Your task to perform on an android device: Open internet settings Image 0: 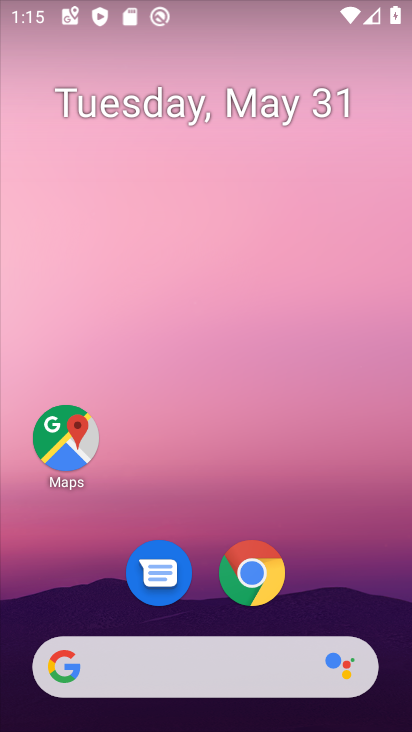
Step 0: drag from (359, 608) to (372, 222)
Your task to perform on an android device: Open internet settings Image 1: 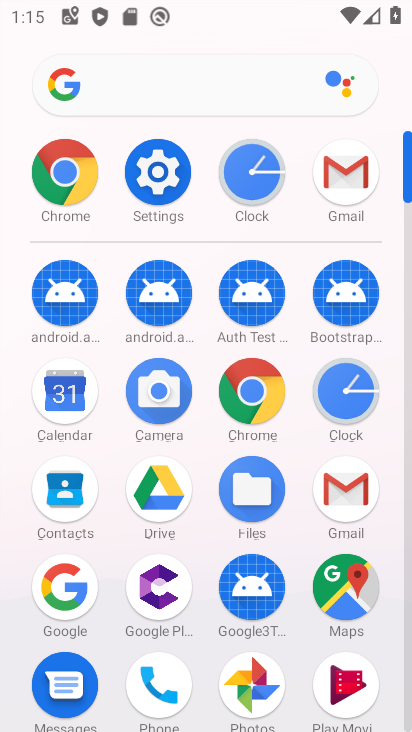
Step 1: click (163, 175)
Your task to perform on an android device: Open internet settings Image 2: 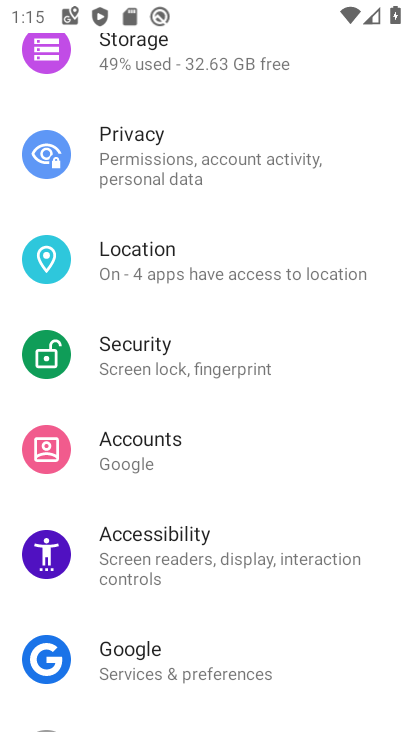
Step 2: drag from (313, 336) to (314, 395)
Your task to perform on an android device: Open internet settings Image 3: 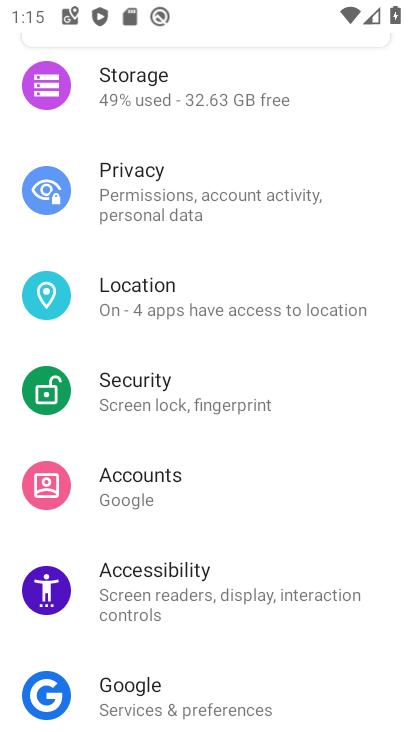
Step 3: drag from (324, 307) to (325, 392)
Your task to perform on an android device: Open internet settings Image 4: 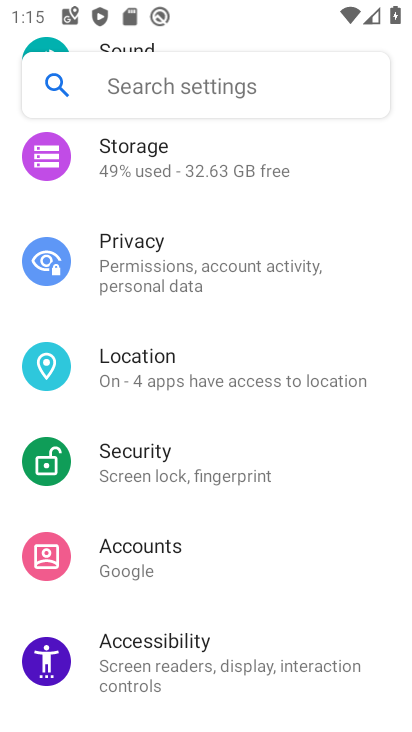
Step 4: drag from (324, 313) to (319, 396)
Your task to perform on an android device: Open internet settings Image 5: 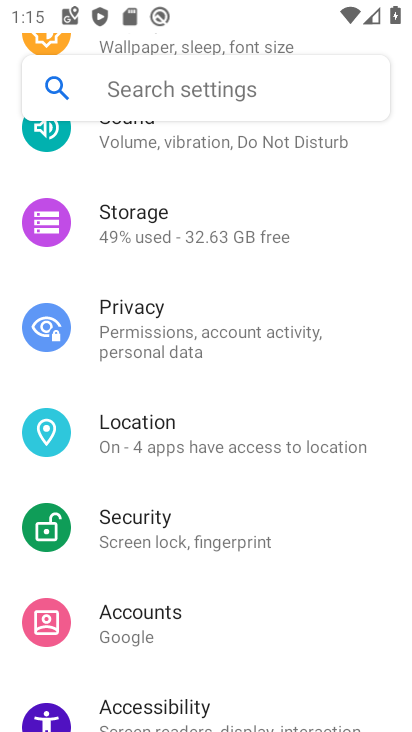
Step 5: drag from (317, 297) to (316, 383)
Your task to perform on an android device: Open internet settings Image 6: 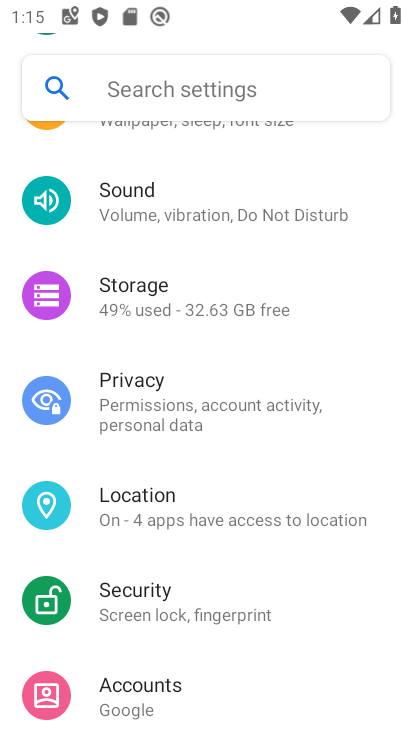
Step 6: drag from (306, 304) to (302, 392)
Your task to perform on an android device: Open internet settings Image 7: 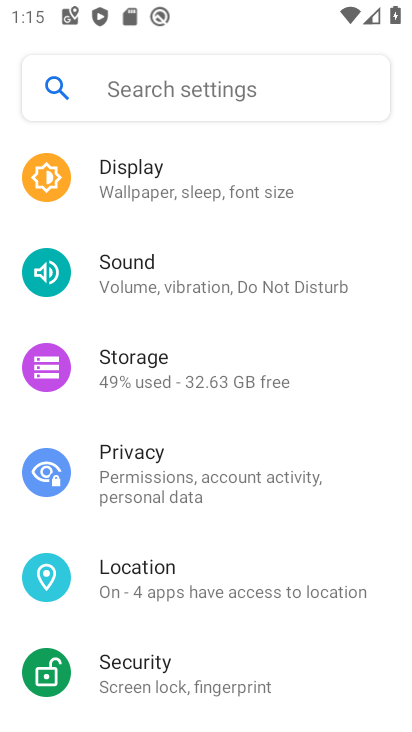
Step 7: drag from (297, 311) to (292, 388)
Your task to perform on an android device: Open internet settings Image 8: 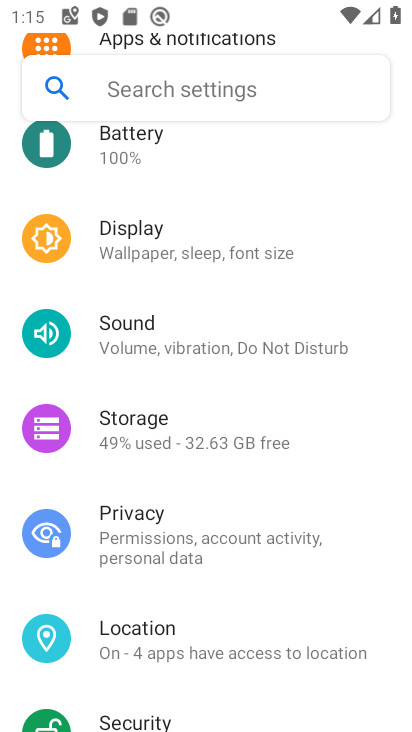
Step 8: drag from (310, 288) to (311, 377)
Your task to perform on an android device: Open internet settings Image 9: 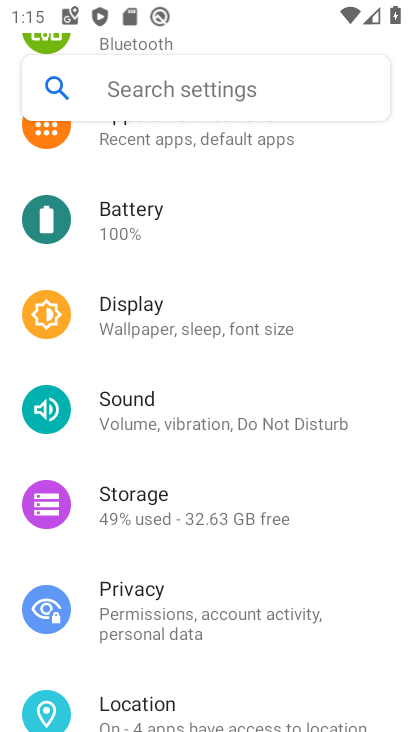
Step 9: drag from (307, 284) to (309, 384)
Your task to perform on an android device: Open internet settings Image 10: 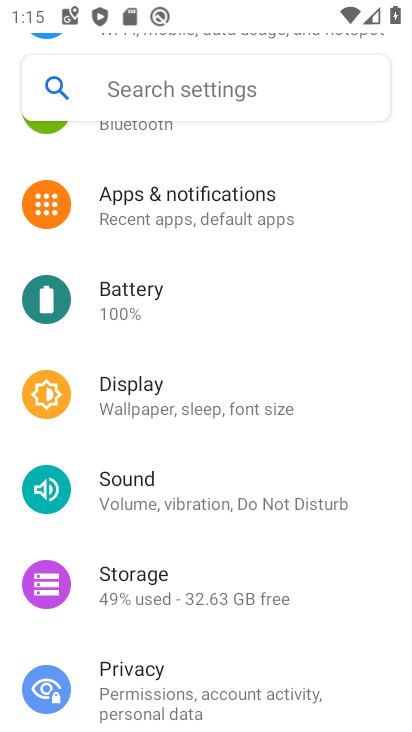
Step 10: drag from (296, 280) to (287, 359)
Your task to perform on an android device: Open internet settings Image 11: 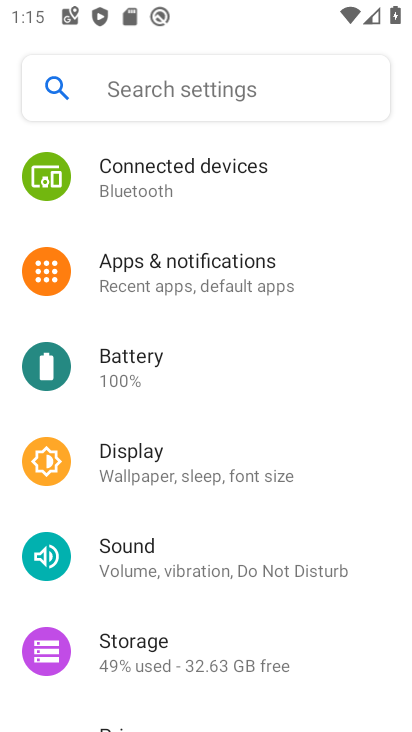
Step 11: drag from (310, 270) to (299, 360)
Your task to perform on an android device: Open internet settings Image 12: 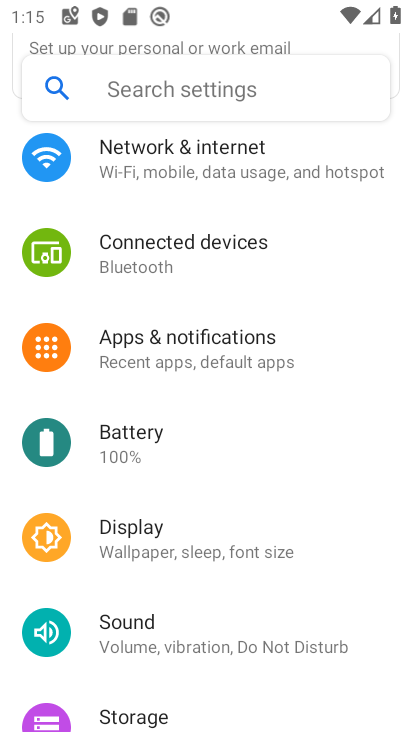
Step 12: drag from (305, 301) to (298, 398)
Your task to perform on an android device: Open internet settings Image 13: 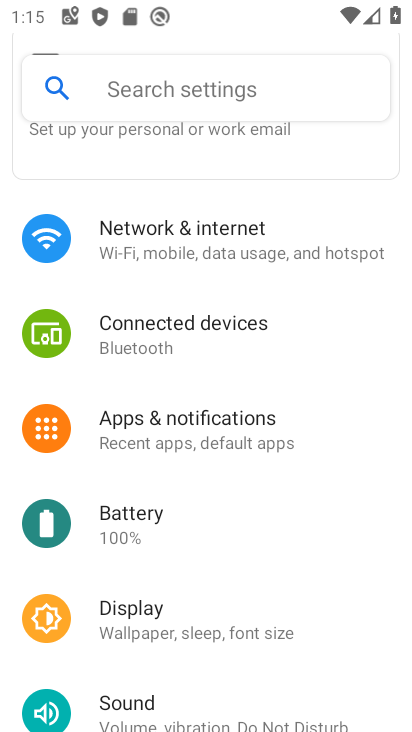
Step 13: drag from (289, 326) to (297, 449)
Your task to perform on an android device: Open internet settings Image 14: 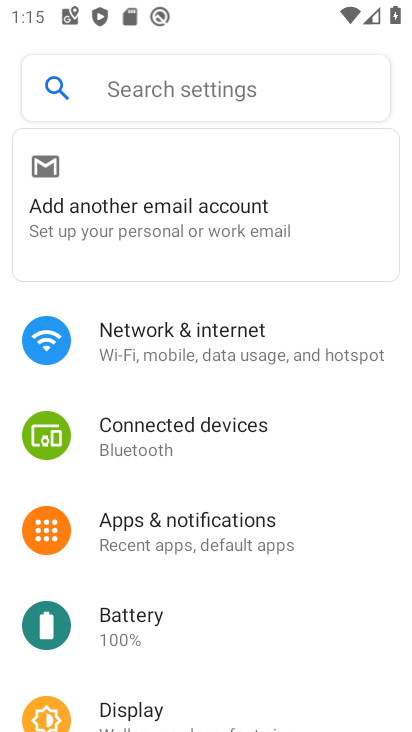
Step 14: drag from (309, 304) to (310, 447)
Your task to perform on an android device: Open internet settings Image 15: 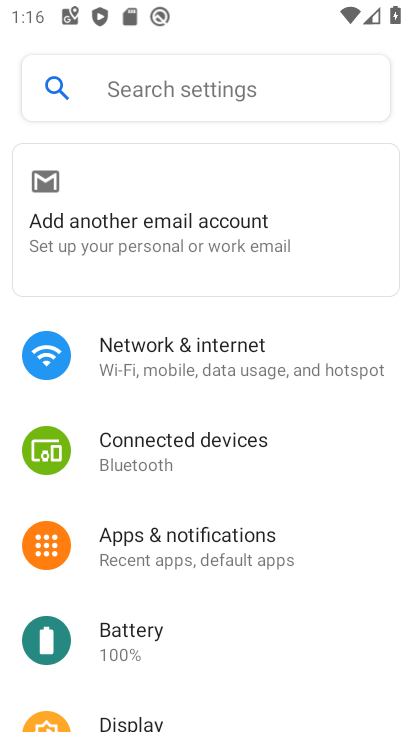
Step 15: click (296, 365)
Your task to perform on an android device: Open internet settings Image 16: 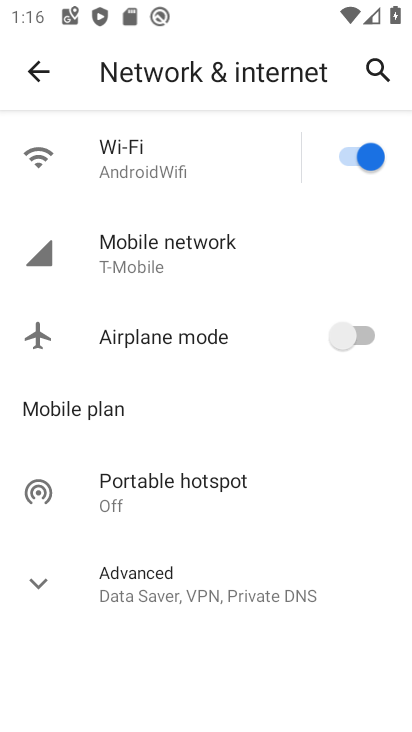
Step 16: task complete